Your task to perform on an android device: Open Google Chrome and click the shortcut for Amazon.com Image 0: 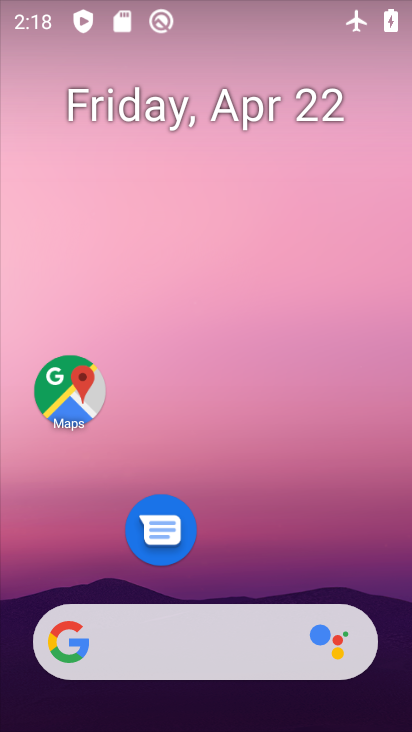
Step 0: drag from (234, 559) to (207, 0)
Your task to perform on an android device: Open Google Chrome and click the shortcut for Amazon.com Image 1: 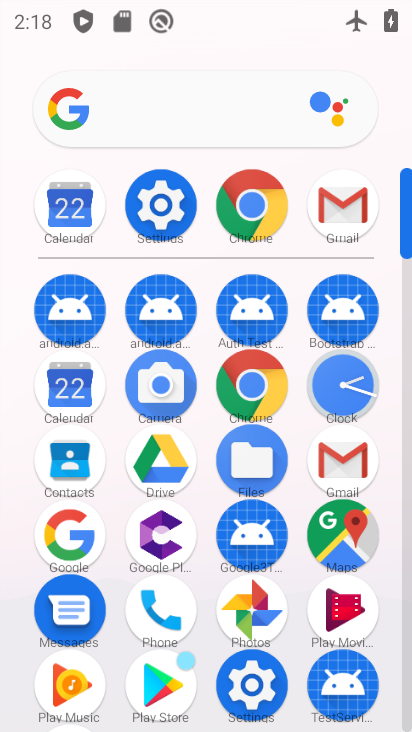
Step 1: click (253, 213)
Your task to perform on an android device: Open Google Chrome and click the shortcut for Amazon.com Image 2: 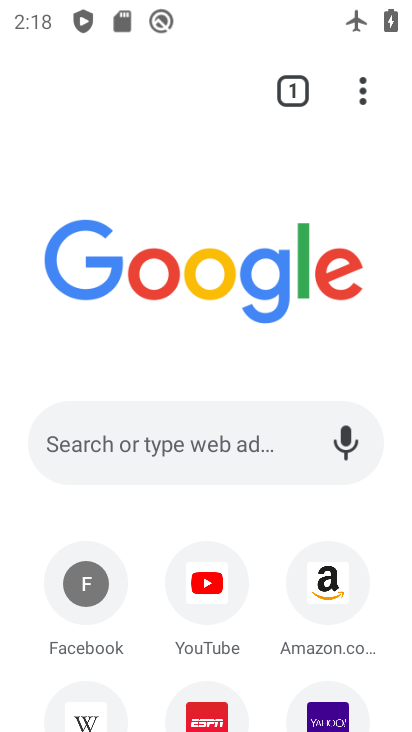
Step 2: click (332, 592)
Your task to perform on an android device: Open Google Chrome and click the shortcut for Amazon.com Image 3: 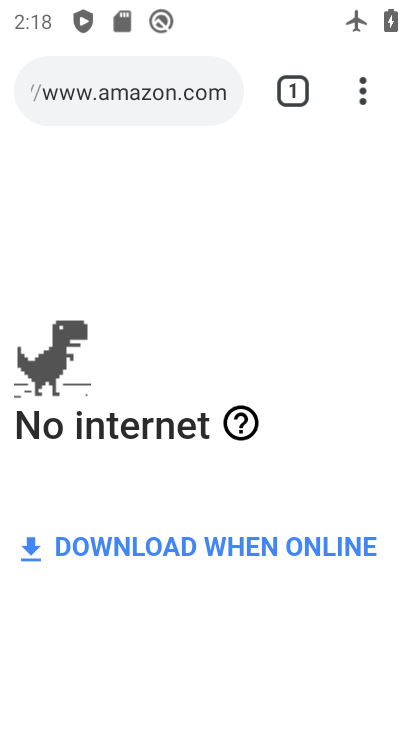
Step 3: task complete